Your task to perform on an android device: Open Youtube and go to "Your channel" Image 0: 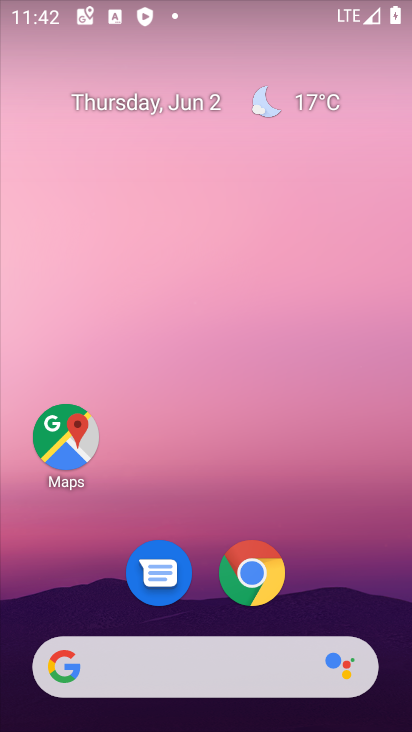
Step 0: drag from (356, 557) to (369, 61)
Your task to perform on an android device: Open Youtube and go to "Your channel" Image 1: 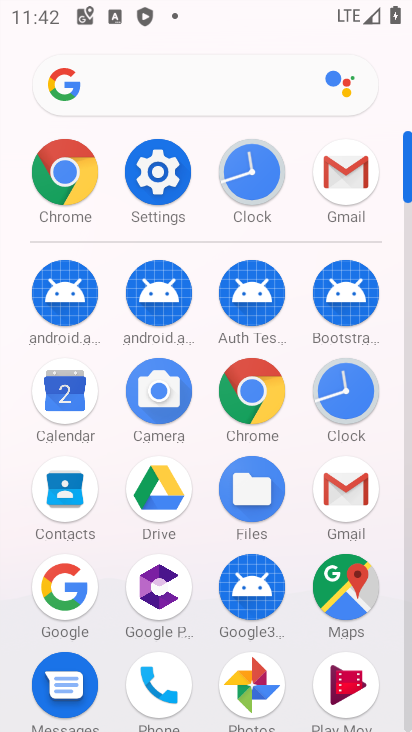
Step 1: drag from (398, 580) to (407, 147)
Your task to perform on an android device: Open Youtube and go to "Your channel" Image 2: 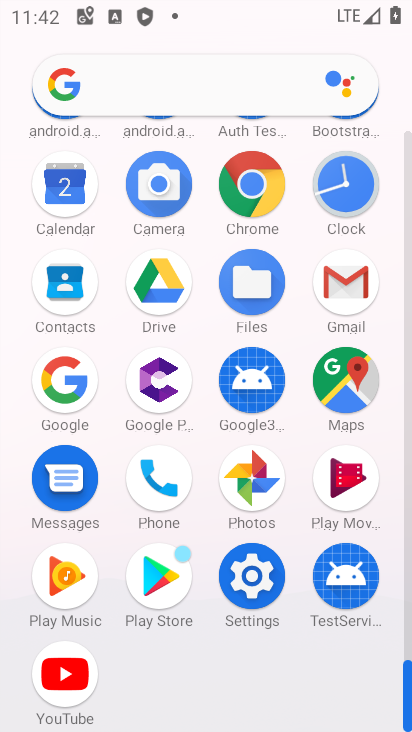
Step 2: click (62, 696)
Your task to perform on an android device: Open Youtube and go to "Your channel" Image 3: 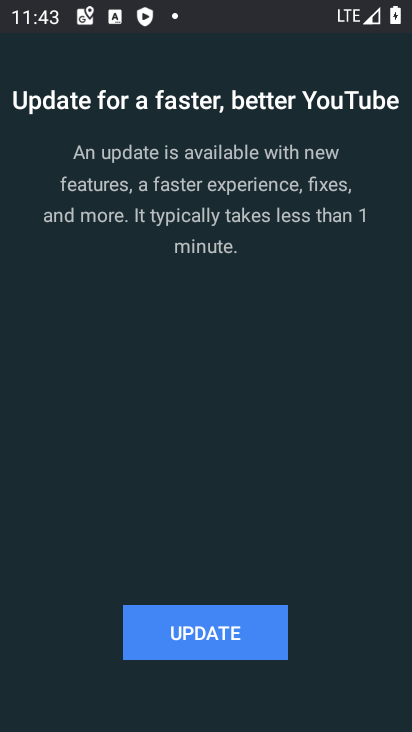
Step 3: click (232, 626)
Your task to perform on an android device: Open Youtube and go to "Your channel" Image 4: 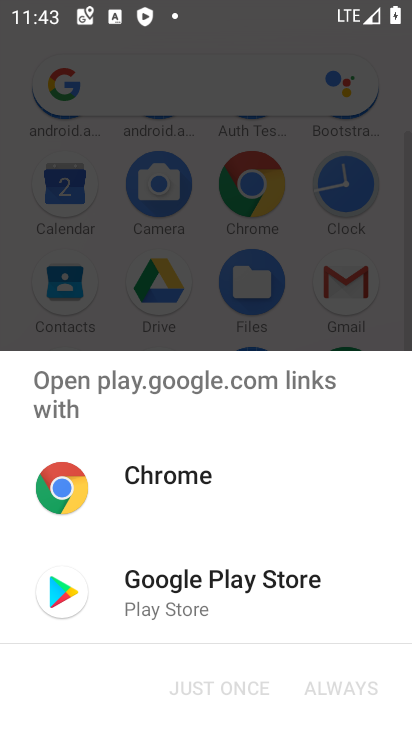
Step 4: click (193, 593)
Your task to perform on an android device: Open Youtube and go to "Your channel" Image 5: 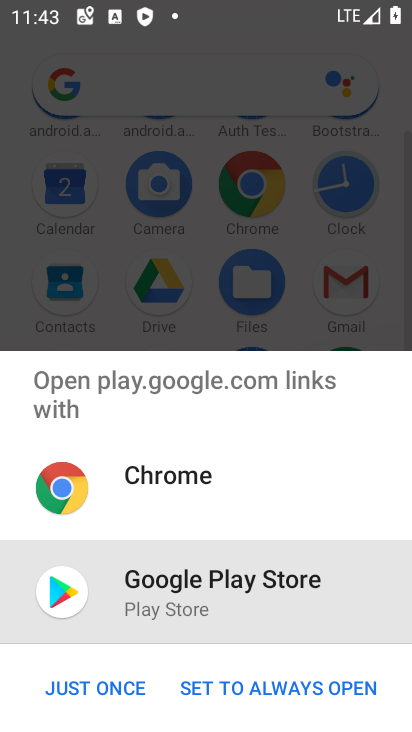
Step 5: click (69, 694)
Your task to perform on an android device: Open Youtube and go to "Your channel" Image 6: 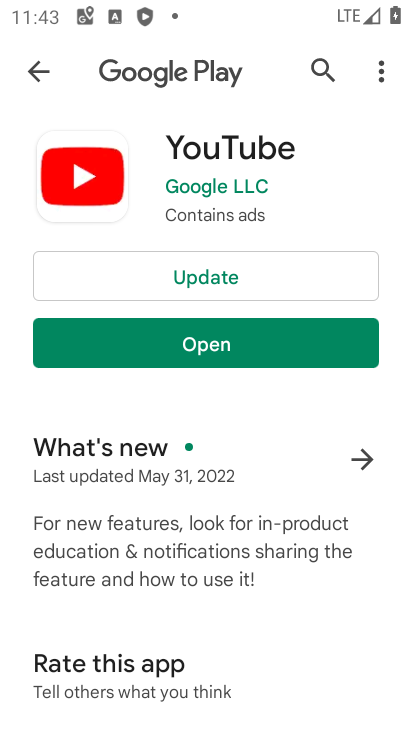
Step 6: click (236, 281)
Your task to perform on an android device: Open Youtube and go to "Your channel" Image 7: 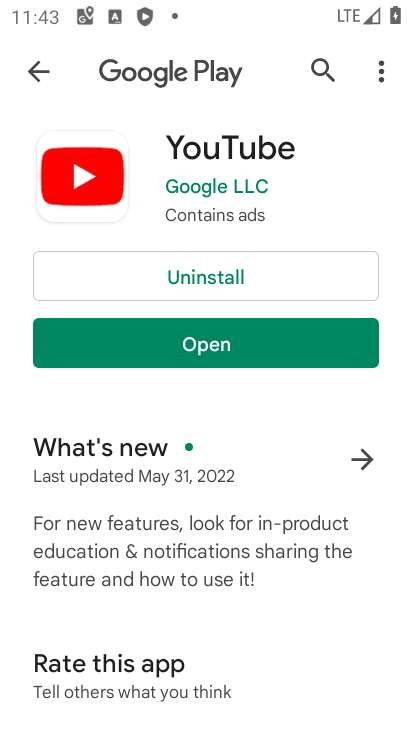
Step 7: click (170, 336)
Your task to perform on an android device: Open Youtube and go to "Your channel" Image 8: 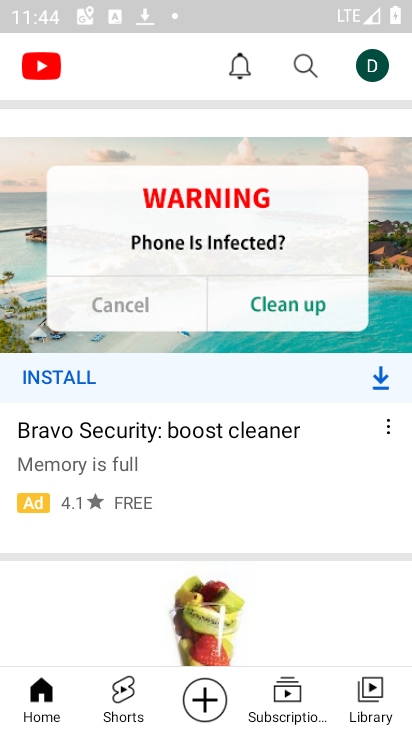
Step 8: click (150, 308)
Your task to perform on an android device: Open Youtube and go to "Your channel" Image 9: 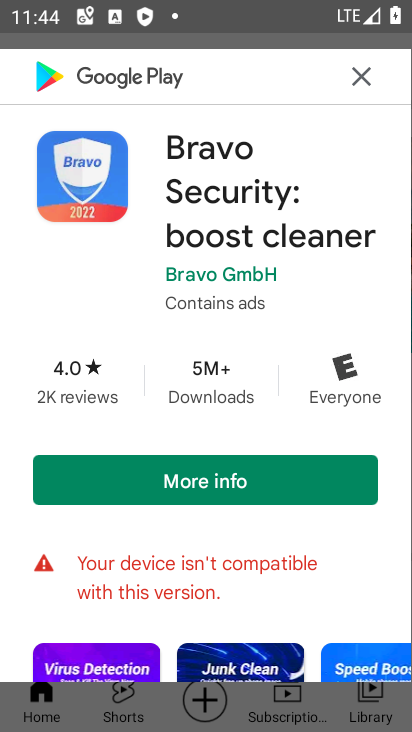
Step 9: click (377, 76)
Your task to perform on an android device: Open Youtube and go to "Your channel" Image 10: 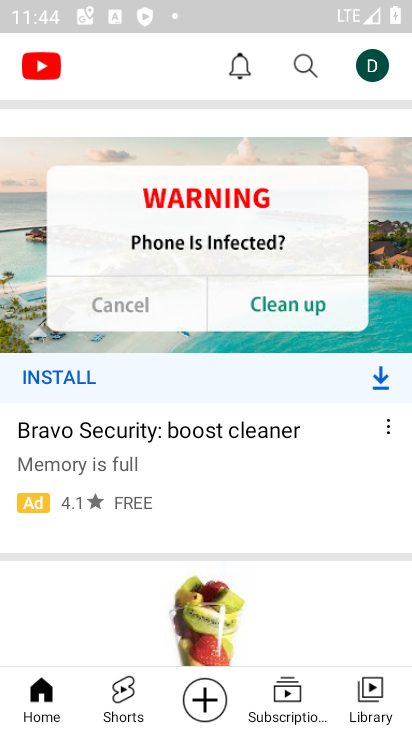
Step 10: click (377, 76)
Your task to perform on an android device: Open Youtube and go to "Your channel" Image 11: 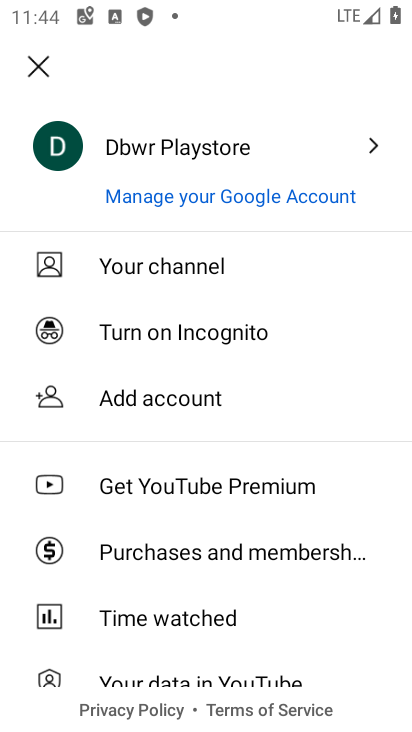
Step 11: click (173, 277)
Your task to perform on an android device: Open Youtube and go to "Your channel" Image 12: 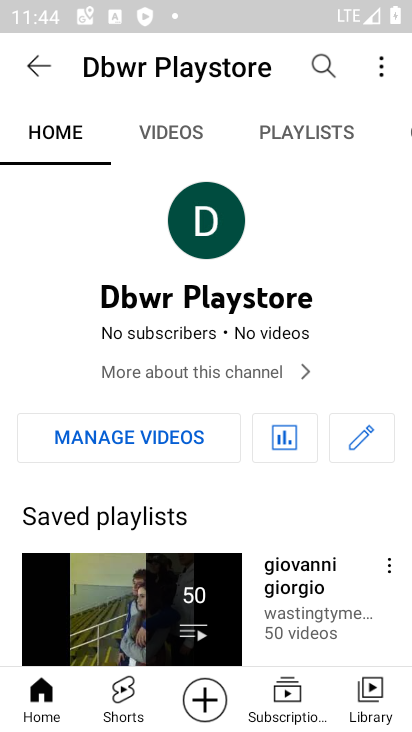
Step 12: task complete